Your task to perform on an android device: turn on sleep mode Image 0: 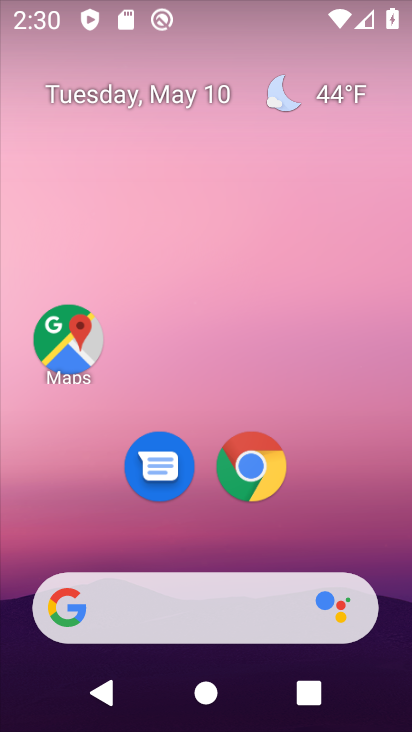
Step 0: drag from (330, 512) to (291, 72)
Your task to perform on an android device: turn on sleep mode Image 1: 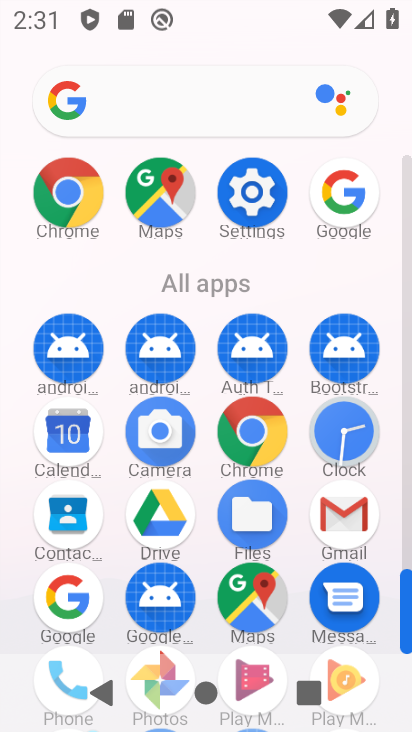
Step 1: click (254, 189)
Your task to perform on an android device: turn on sleep mode Image 2: 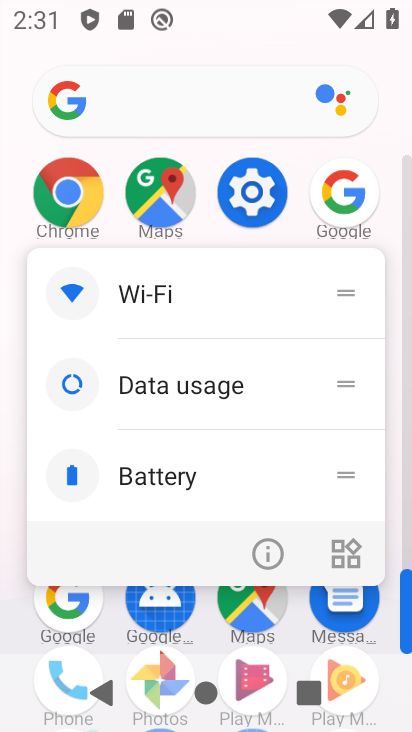
Step 2: click (254, 190)
Your task to perform on an android device: turn on sleep mode Image 3: 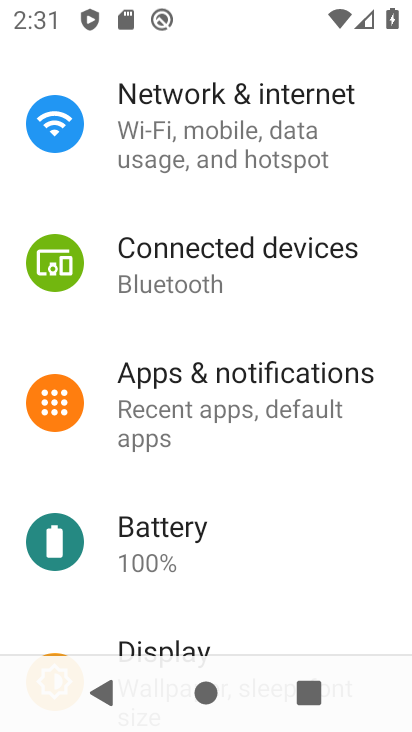
Step 3: drag from (264, 216) to (304, 330)
Your task to perform on an android device: turn on sleep mode Image 4: 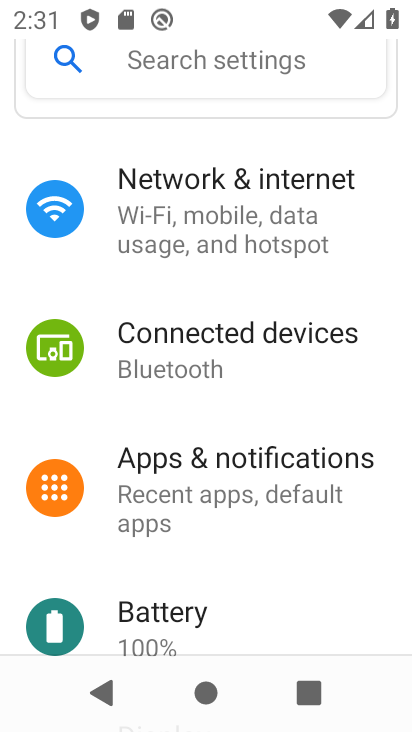
Step 4: drag from (239, 424) to (283, 289)
Your task to perform on an android device: turn on sleep mode Image 5: 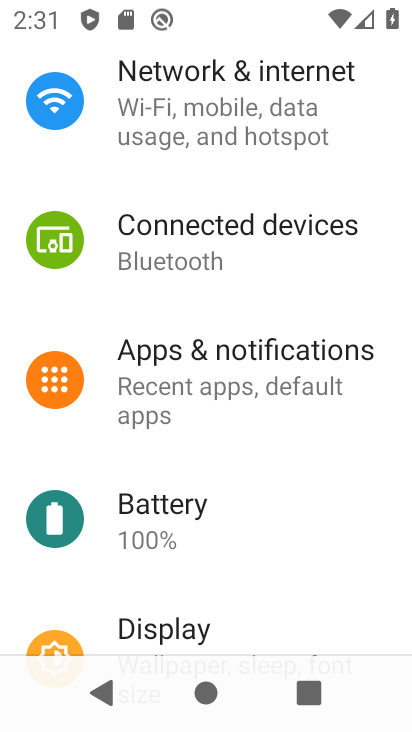
Step 5: click (260, 345)
Your task to perform on an android device: turn on sleep mode Image 6: 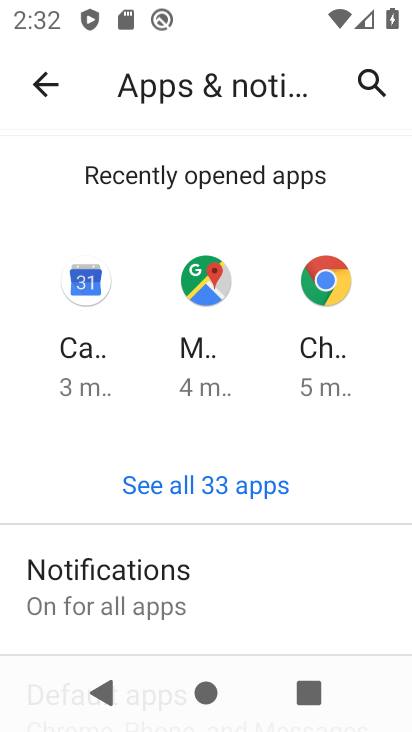
Step 6: press back button
Your task to perform on an android device: turn on sleep mode Image 7: 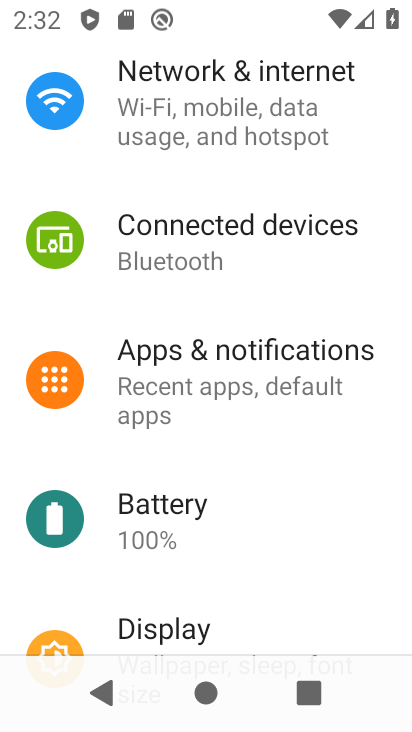
Step 7: drag from (223, 453) to (245, 293)
Your task to perform on an android device: turn on sleep mode Image 8: 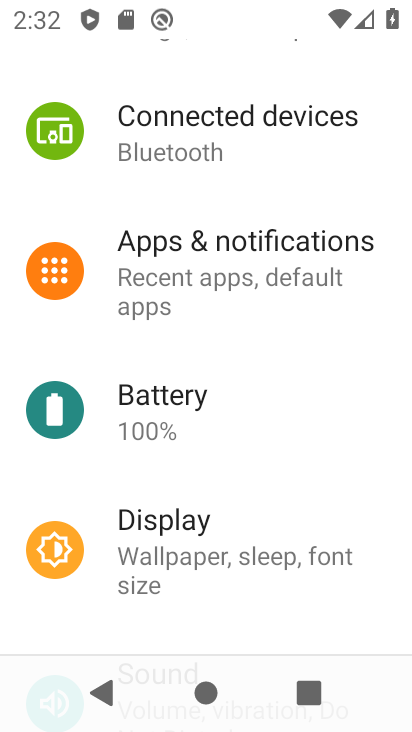
Step 8: drag from (210, 372) to (235, 259)
Your task to perform on an android device: turn on sleep mode Image 9: 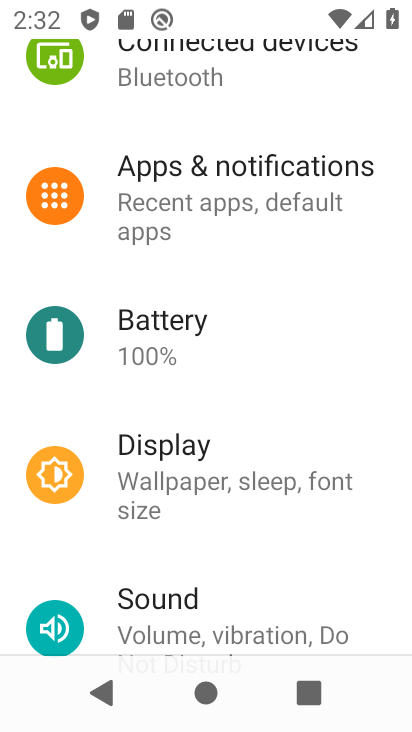
Step 9: drag from (239, 381) to (296, 265)
Your task to perform on an android device: turn on sleep mode Image 10: 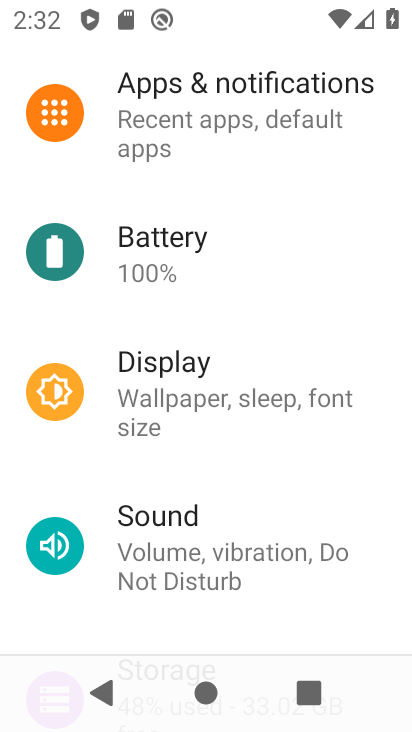
Step 10: click (229, 382)
Your task to perform on an android device: turn on sleep mode Image 11: 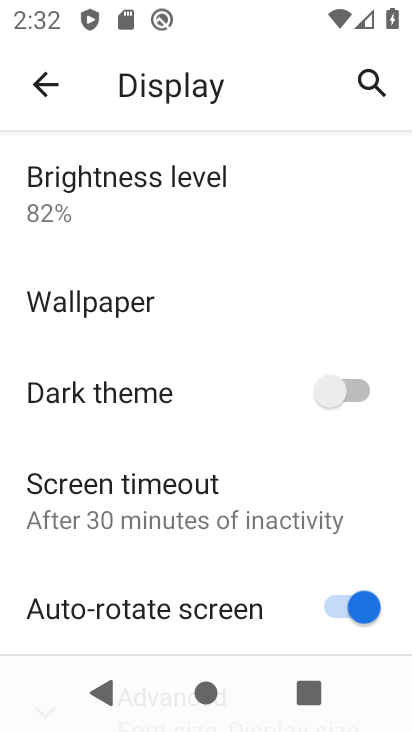
Step 11: drag from (182, 369) to (190, 260)
Your task to perform on an android device: turn on sleep mode Image 12: 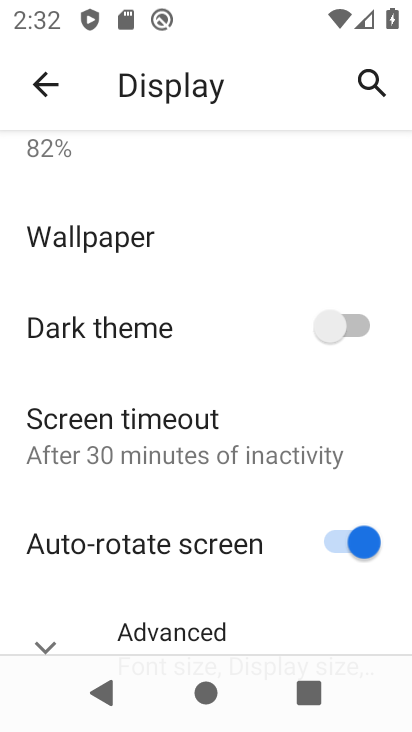
Step 12: drag from (144, 401) to (149, 322)
Your task to perform on an android device: turn on sleep mode Image 13: 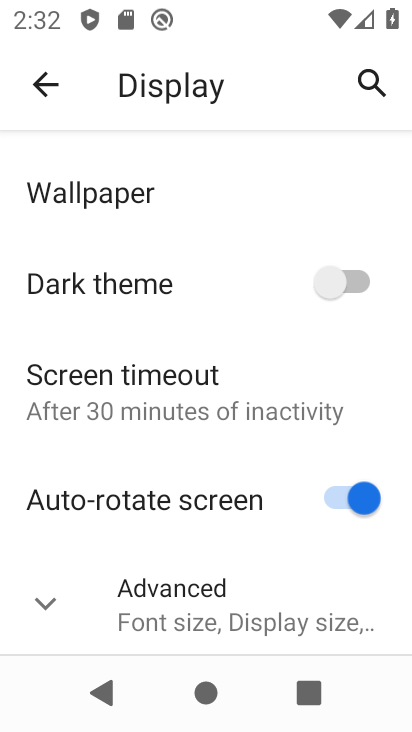
Step 13: click (140, 356)
Your task to perform on an android device: turn on sleep mode Image 14: 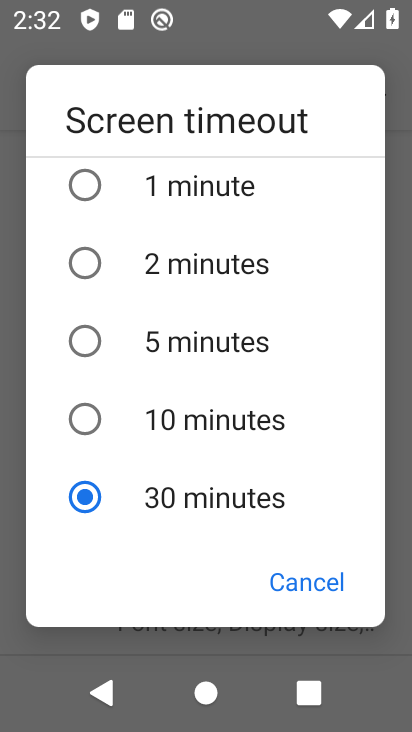
Step 14: click (313, 574)
Your task to perform on an android device: turn on sleep mode Image 15: 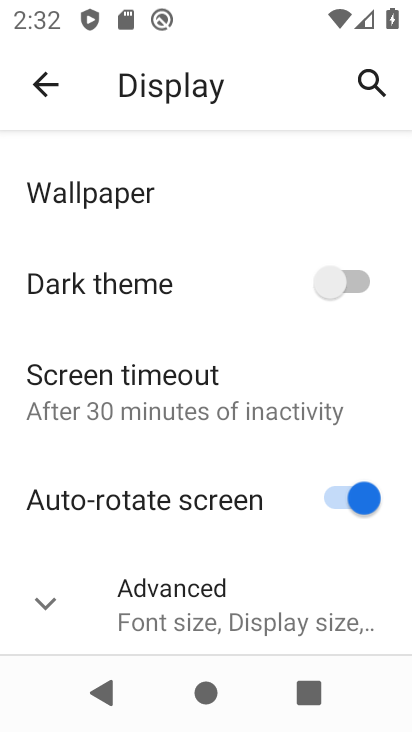
Step 15: drag from (313, 573) to (307, 401)
Your task to perform on an android device: turn on sleep mode Image 16: 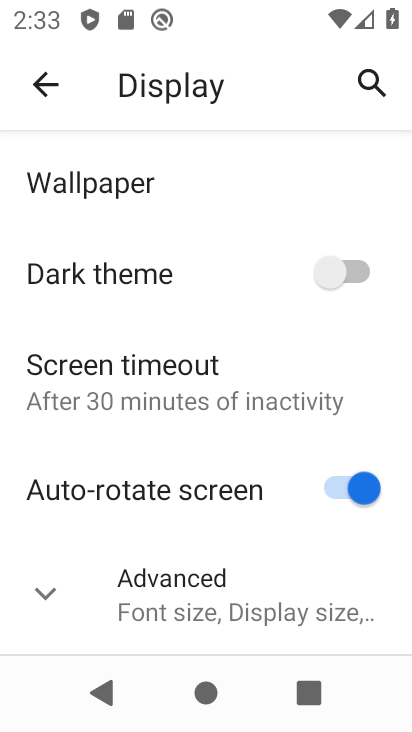
Step 16: click (189, 589)
Your task to perform on an android device: turn on sleep mode Image 17: 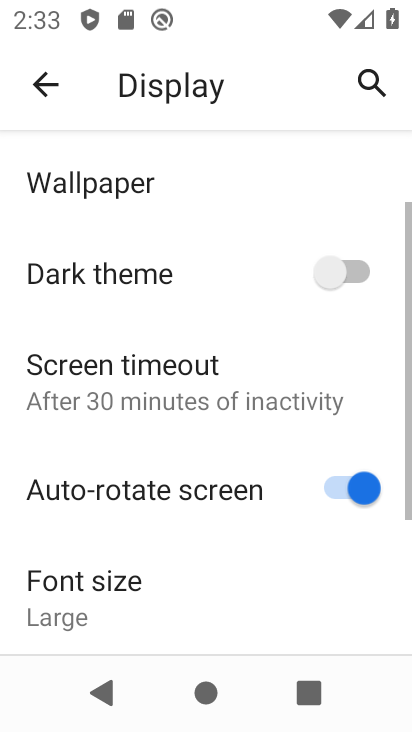
Step 17: drag from (189, 589) to (217, 438)
Your task to perform on an android device: turn on sleep mode Image 18: 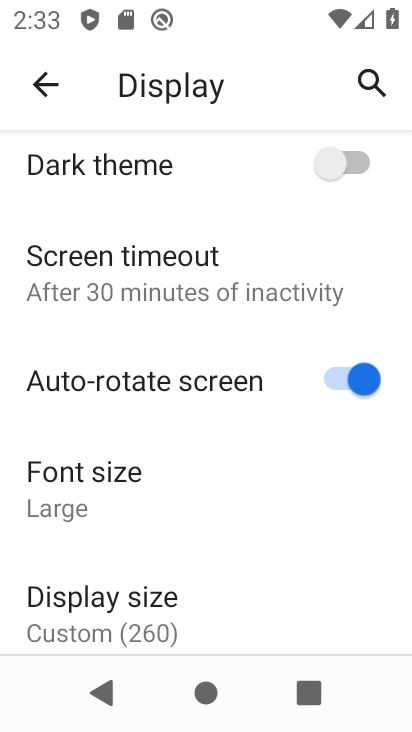
Step 18: drag from (198, 570) to (215, 450)
Your task to perform on an android device: turn on sleep mode Image 19: 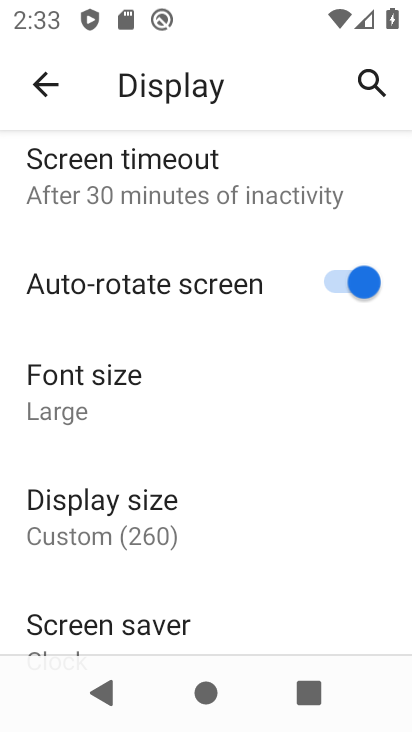
Step 19: drag from (179, 567) to (208, 435)
Your task to perform on an android device: turn on sleep mode Image 20: 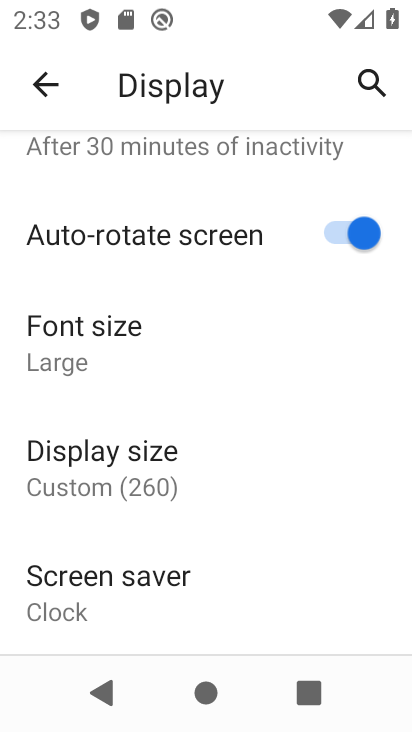
Step 20: press back button
Your task to perform on an android device: turn on sleep mode Image 21: 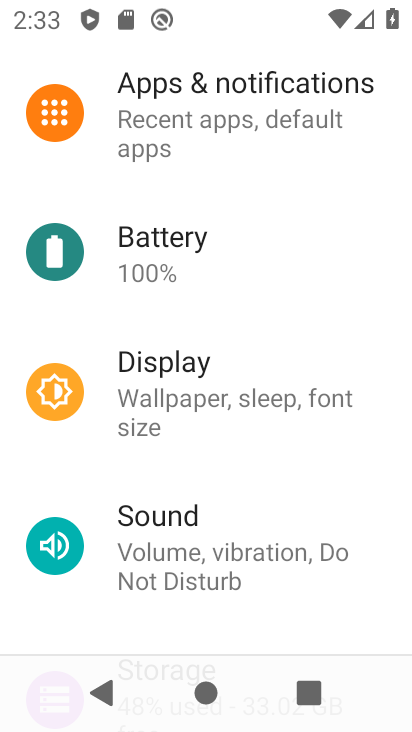
Step 21: drag from (210, 557) to (258, 281)
Your task to perform on an android device: turn on sleep mode Image 22: 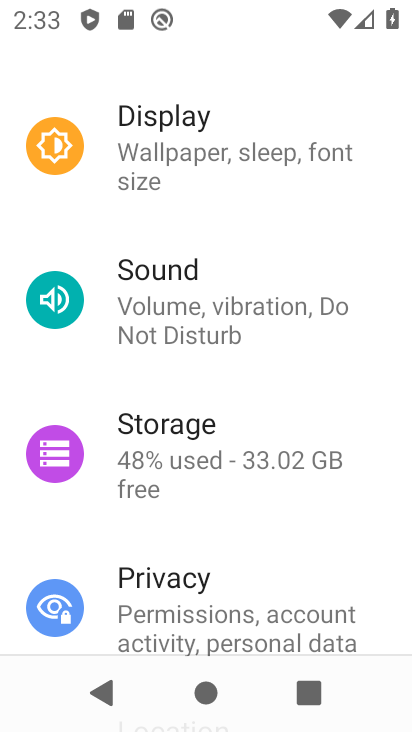
Step 22: click (266, 332)
Your task to perform on an android device: turn on sleep mode Image 23: 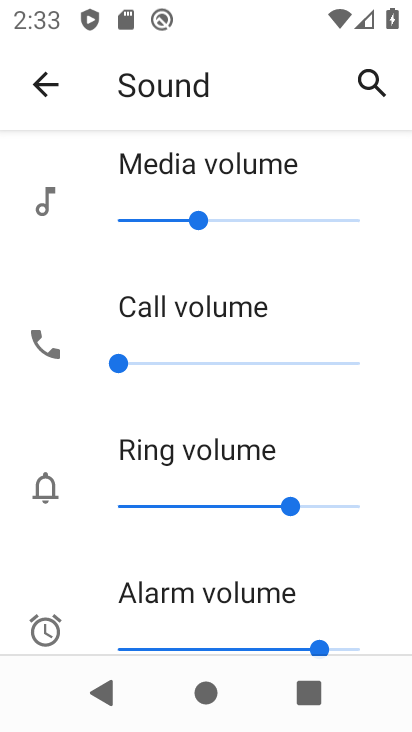
Step 23: task complete